Your task to perform on an android device: Open Amazon Image 0: 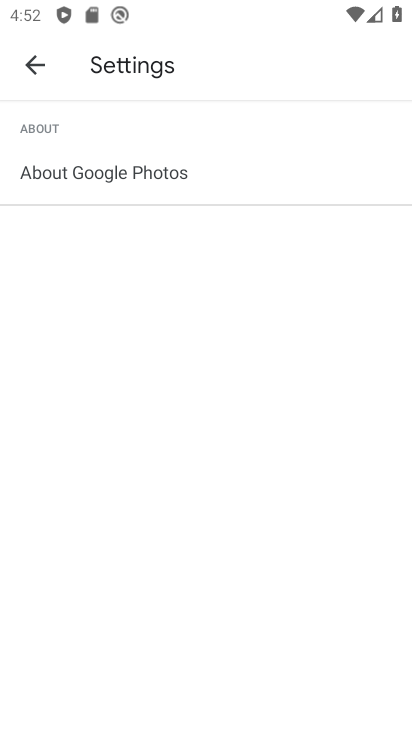
Step 0: press home button
Your task to perform on an android device: Open Amazon Image 1: 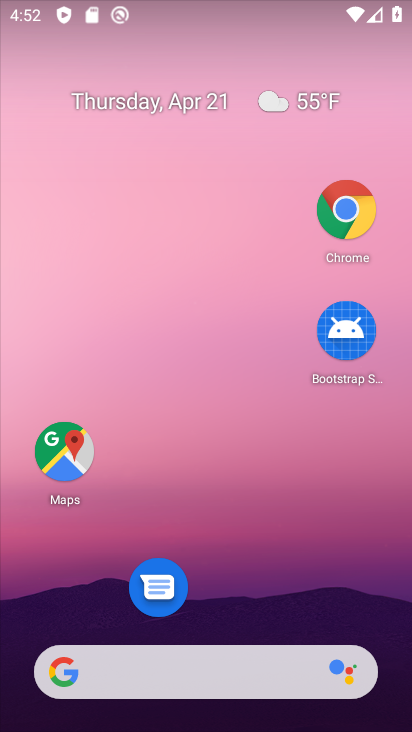
Step 1: drag from (329, 604) to (355, 123)
Your task to perform on an android device: Open Amazon Image 2: 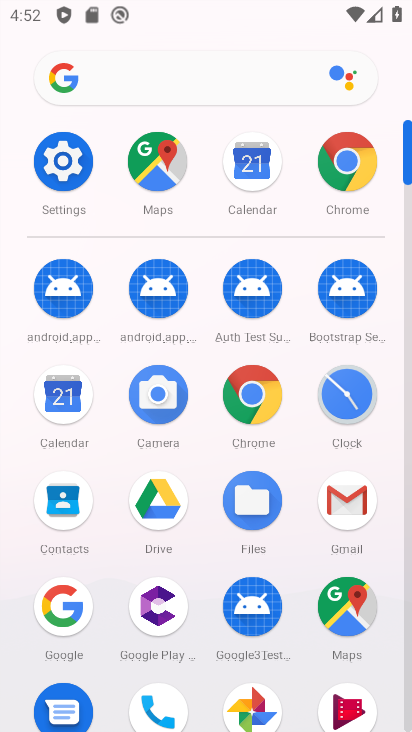
Step 2: click (249, 390)
Your task to perform on an android device: Open Amazon Image 3: 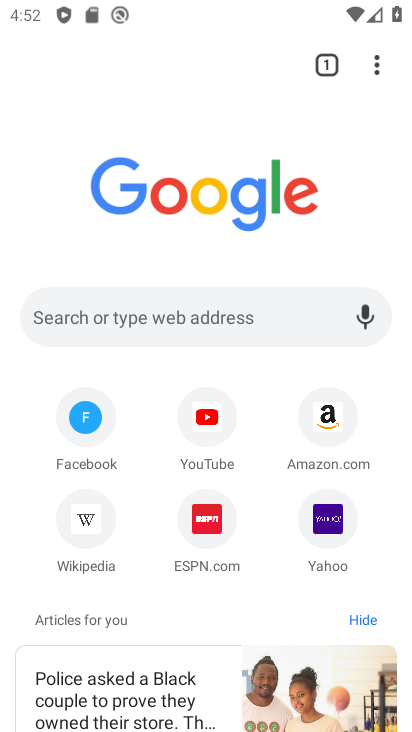
Step 3: click (328, 399)
Your task to perform on an android device: Open Amazon Image 4: 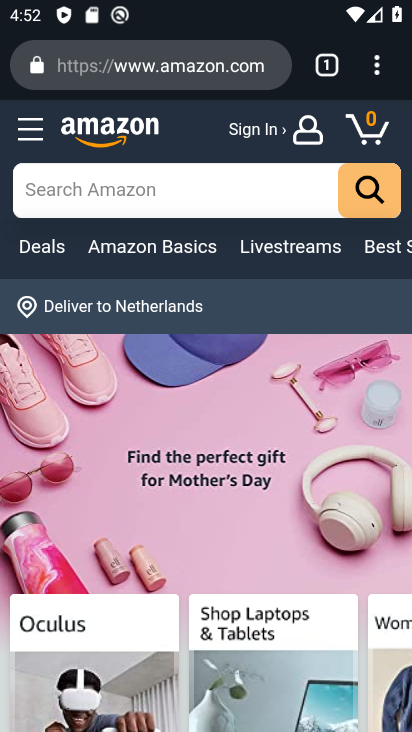
Step 4: task complete